Your task to perform on an android device: turn on javascript in the chrome app Image 0: 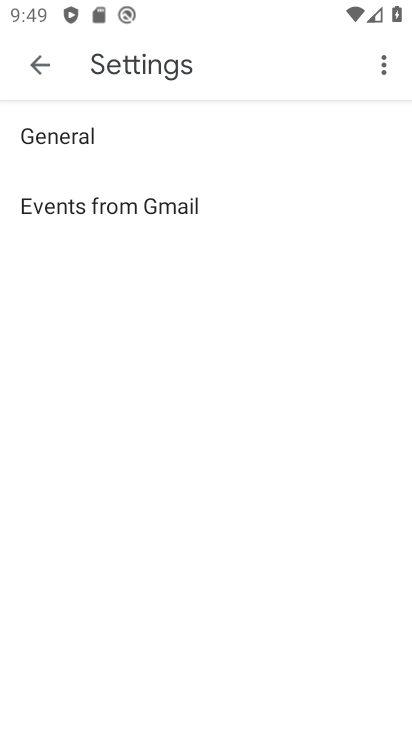
Step 0: press home button
Your task to perform on an android device: turn on javascript in the chrome app Image 1: 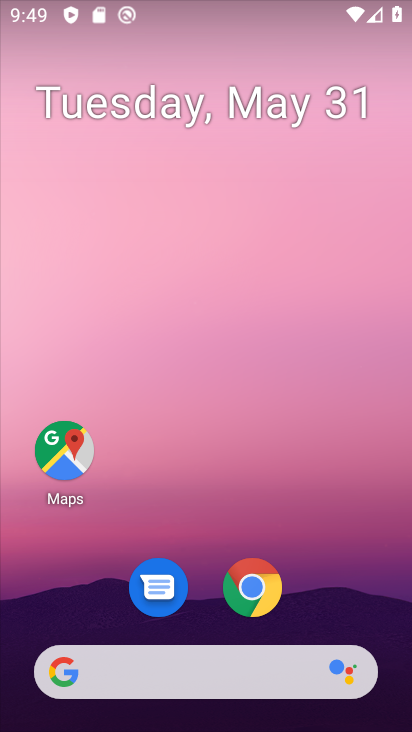
Step 1: click (247, 582)
Your task to perform on an android device: turn on javascript in the chrome app Image 2: 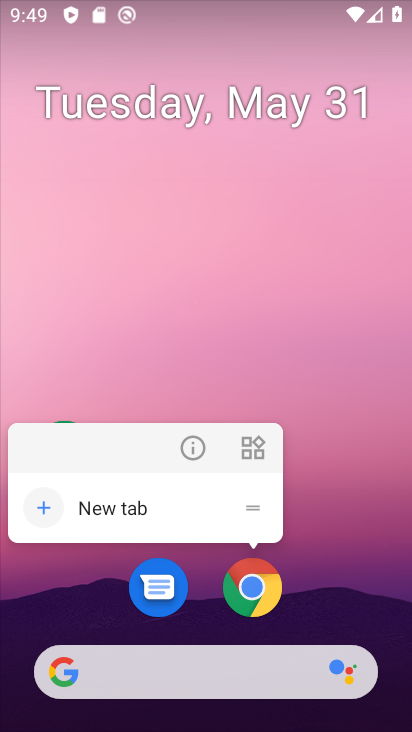
Step 2: click (256, 593)
Your task to perform on an android device: turn on javascript in the chrome app Image 3: 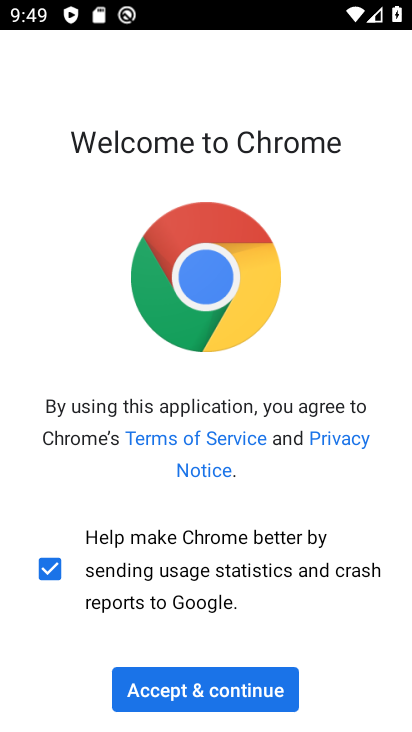
Step 3: click (194, 682)
Your task to perform on an android device: turn on javascript in the chrome app Image 4: 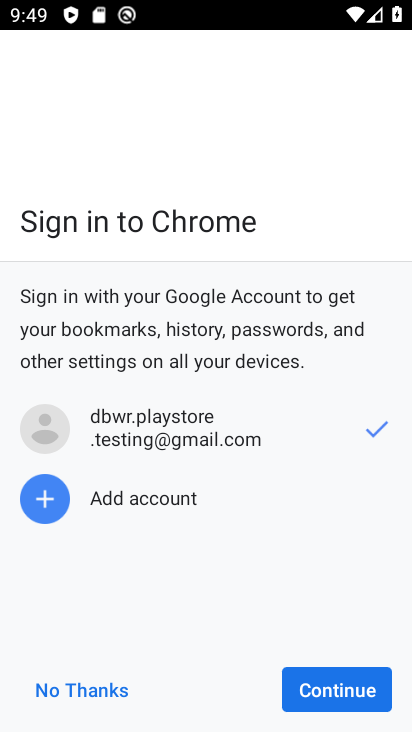
Step 4: click (329, 686)
Your task to perform on an android device: turn on javascript in the chrome app Image 5: 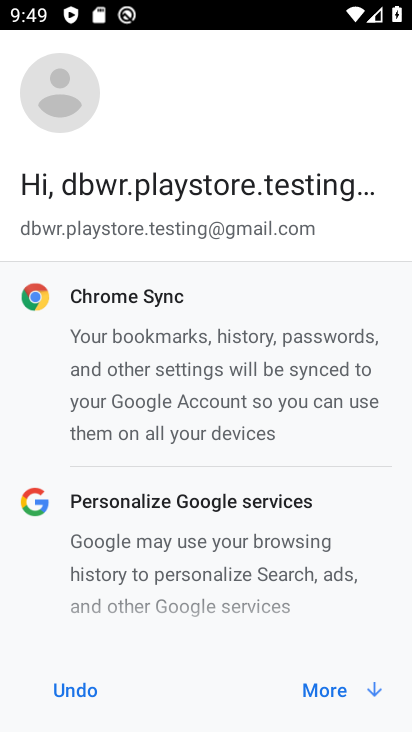
Step 5: click (329, 686)
Your task to perform on an android device: turn on javascript in the chrome app Image 6: 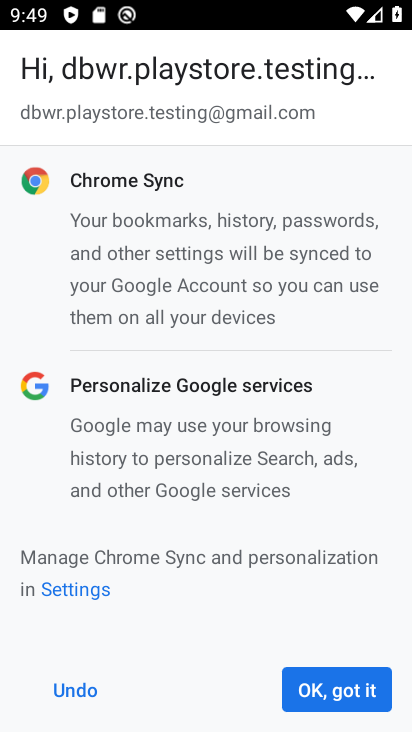
Step 6: click (329, 686)
Your task to perform on an android device: turn on javascript in the chrome app Image 7: 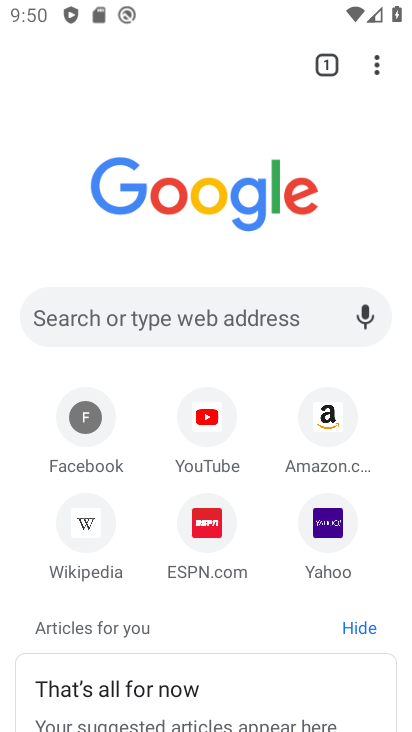
Step 7: click (375, 61)
Your task to perform on an android device: turn on javascript in the chrome app Image 8: 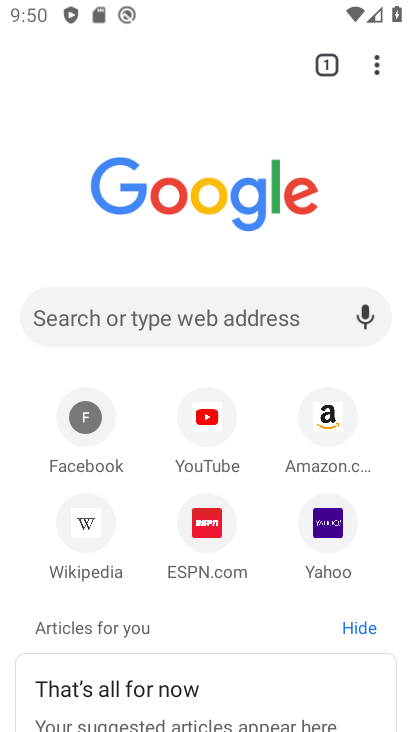
Step 8: click (380, 57)
Your task to perform on an android device: turn on javascript in the chrome app Image 9: 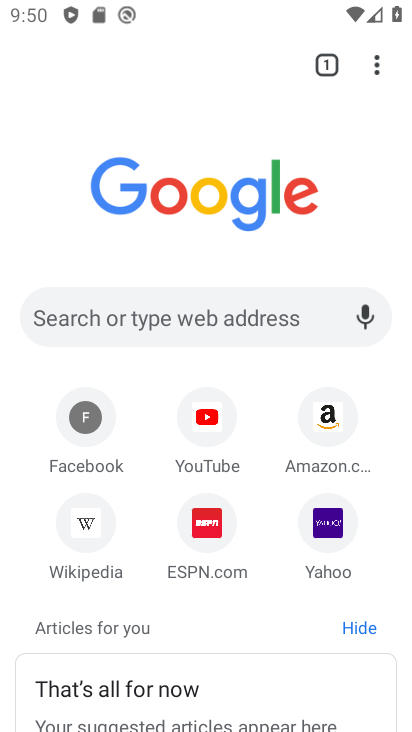
Step 9: click (380, 57)
Your task to perform on an android device: turn on javascript in the chrome app Image 10: 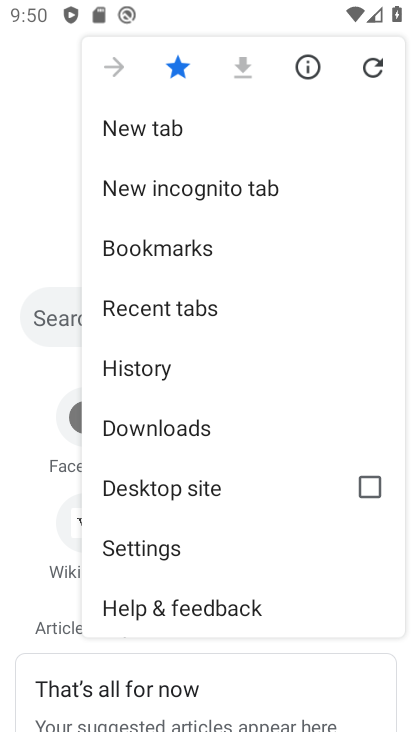
Step 10: click (186, 541)
Your task to perform on an android device: turn on javascript in the chrome app Image 11: 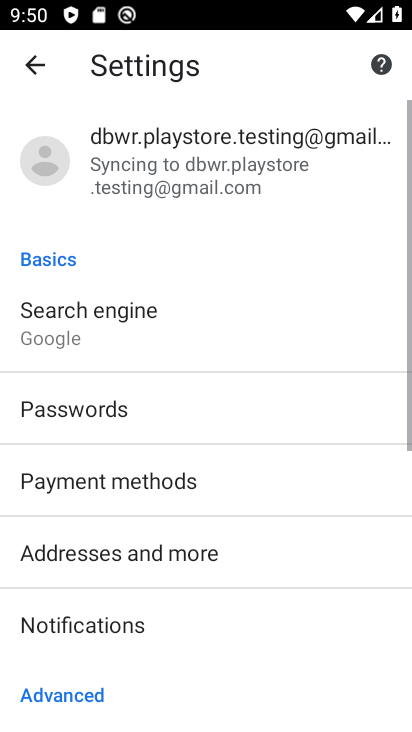
Step 11: drag from (161, 684) to (192, 91)
Your task to perform on an android device: turn on javascript in the chrome app Image 12: 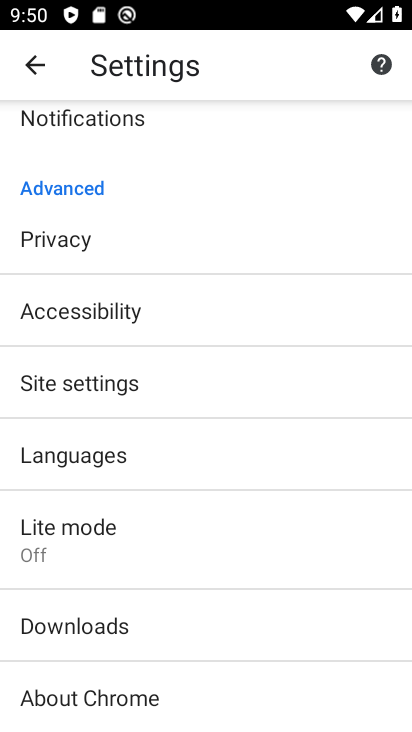
Step 12: click (156, 380)
Your task to perform on an android device: turn on javascript in the chrome app Image 13: 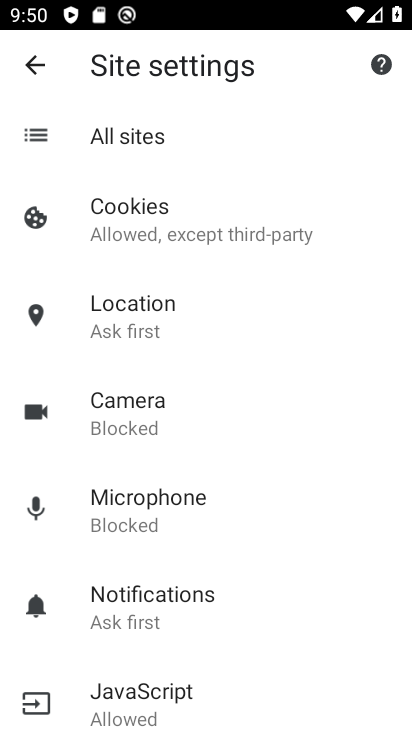
Step 13: click (189, 696)
Your task to perform on an android device: turn on javascript in the chrome app Image 14: 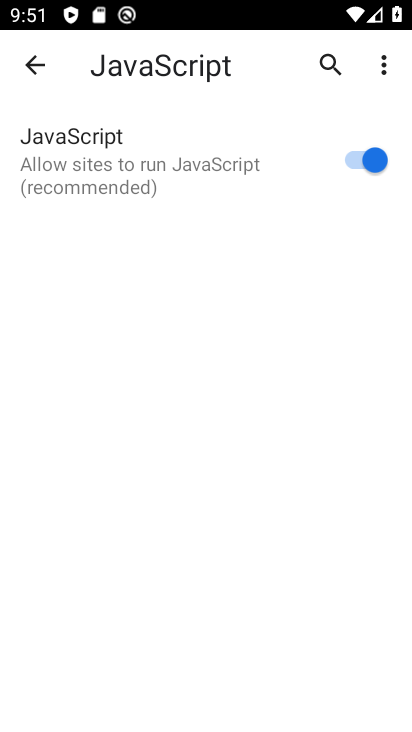
Step 14: task complete